Your task to perform on an android device: Check the news Image 0: 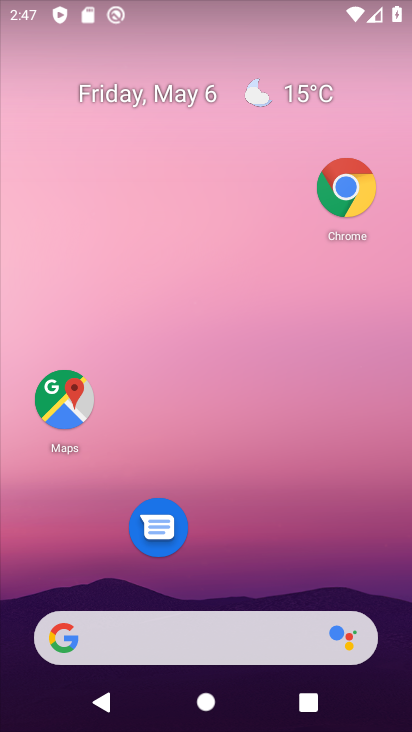
Step 0: drag from (269, 538) to (172, 21)
Your task to perform on an android device: Check the news Image 1: 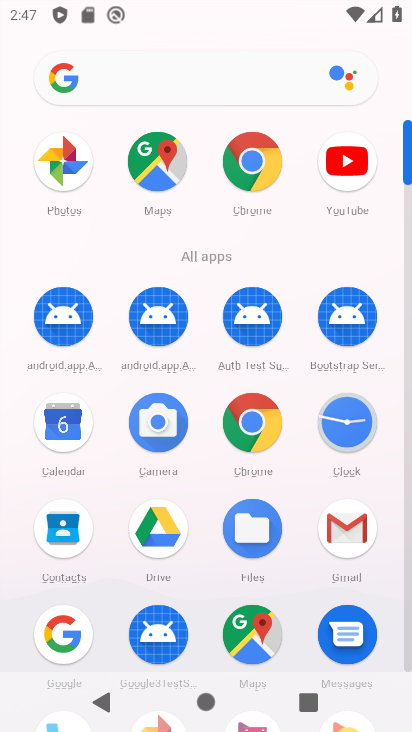
Step 1: click (63, 623)
Your task to perform on an android device: Check the news Image 2: 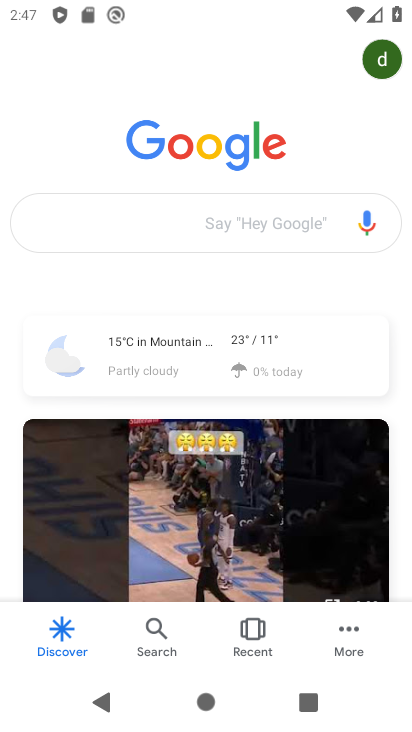
Step 2: click (237, 223)
Your task to perform on an android device: Check the news Image 3: 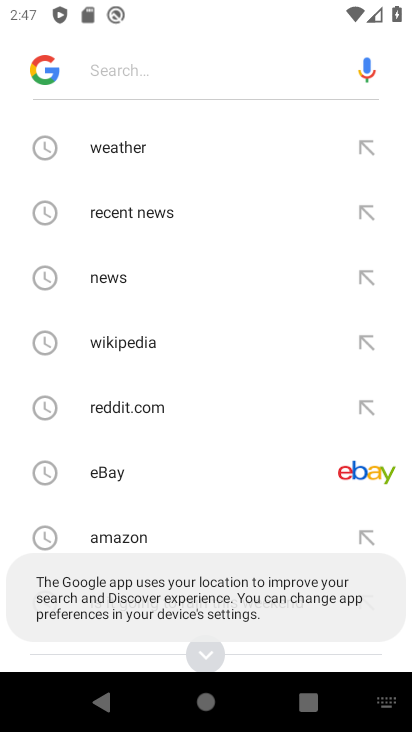
Step 3: click (125, 283)
Your task to perform on an android device: Check the news Image 4: 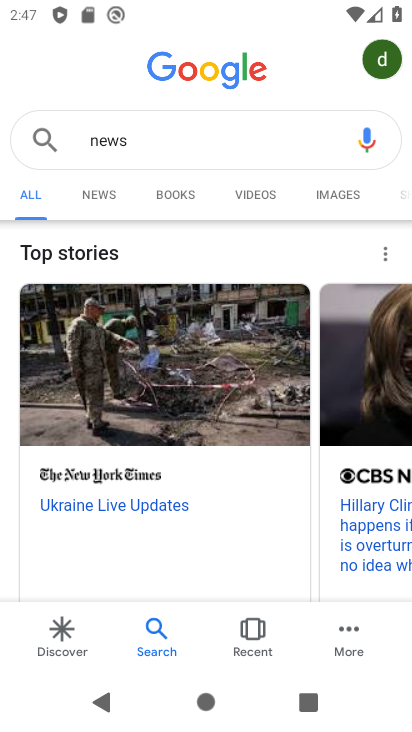
Step 4: task complete